Your task to perform on an android device: Add dell xps to the cart on bestbuy, then select checkout. Image 0: 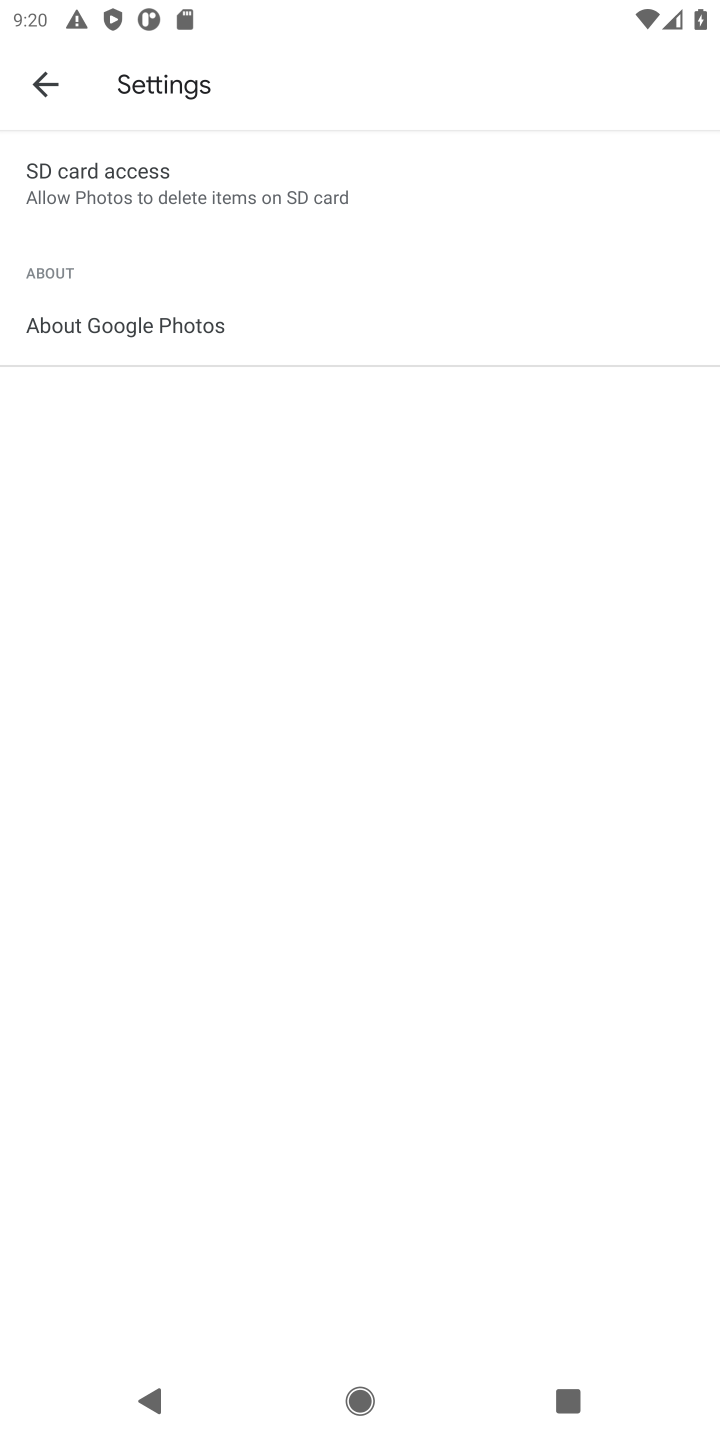
Step 0: press home button
Your task to perform on an android device: Add dell xps to the cart on bestbuy, then select checkout. Image 1: 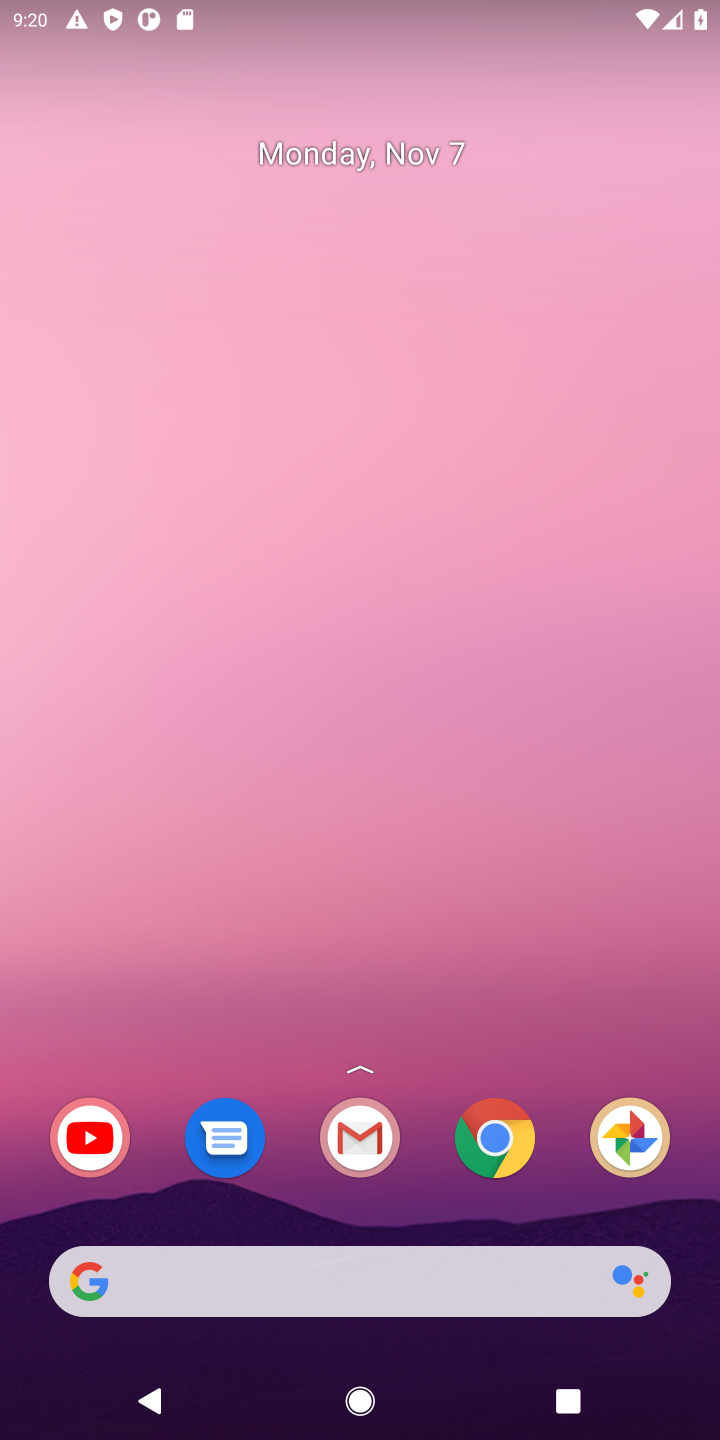
Step 1: click (505, 1133)
Your task to perform on an android device: Add dell xps to the cart on bestbuy, then select checkout. Image 2: 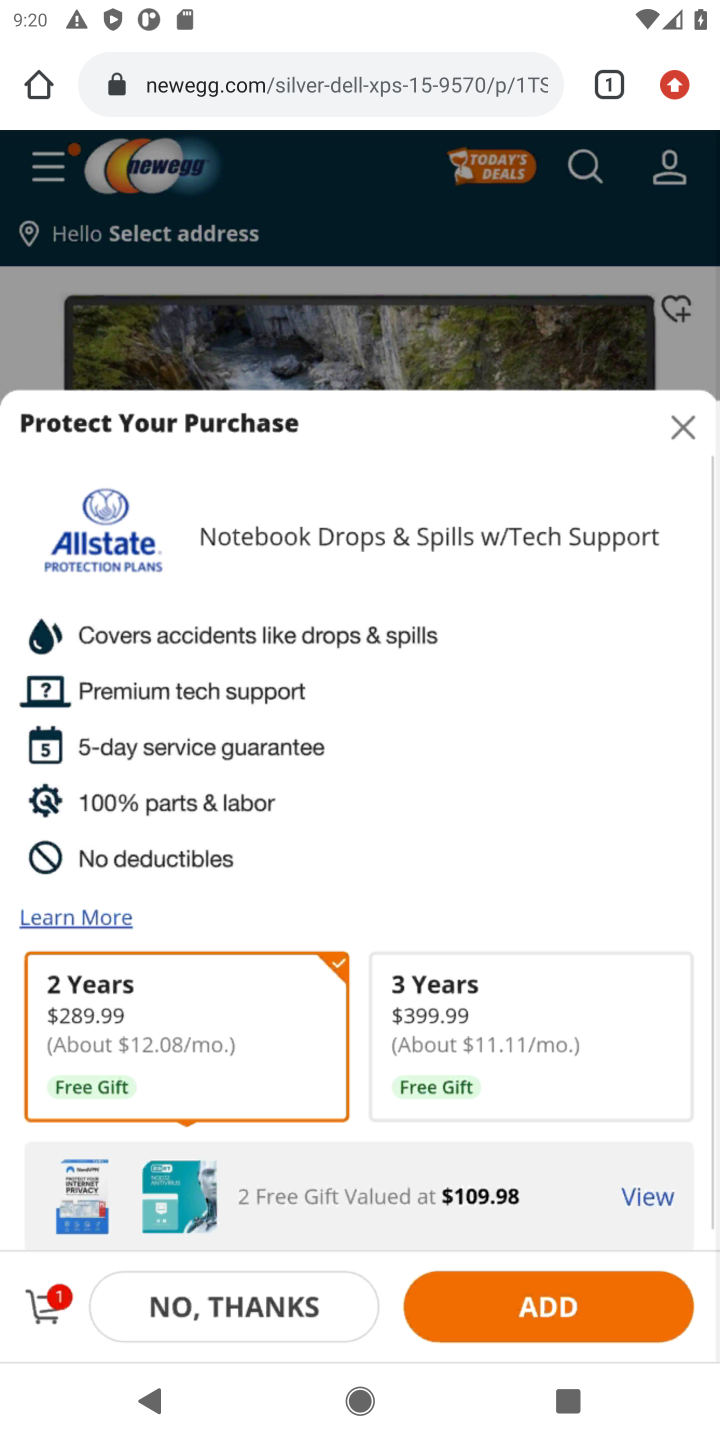
Step 2: click (216, 80)
Your task to perform on an android device: Add dell xps to the cart on bestbuy, then select checkout. Image 3: 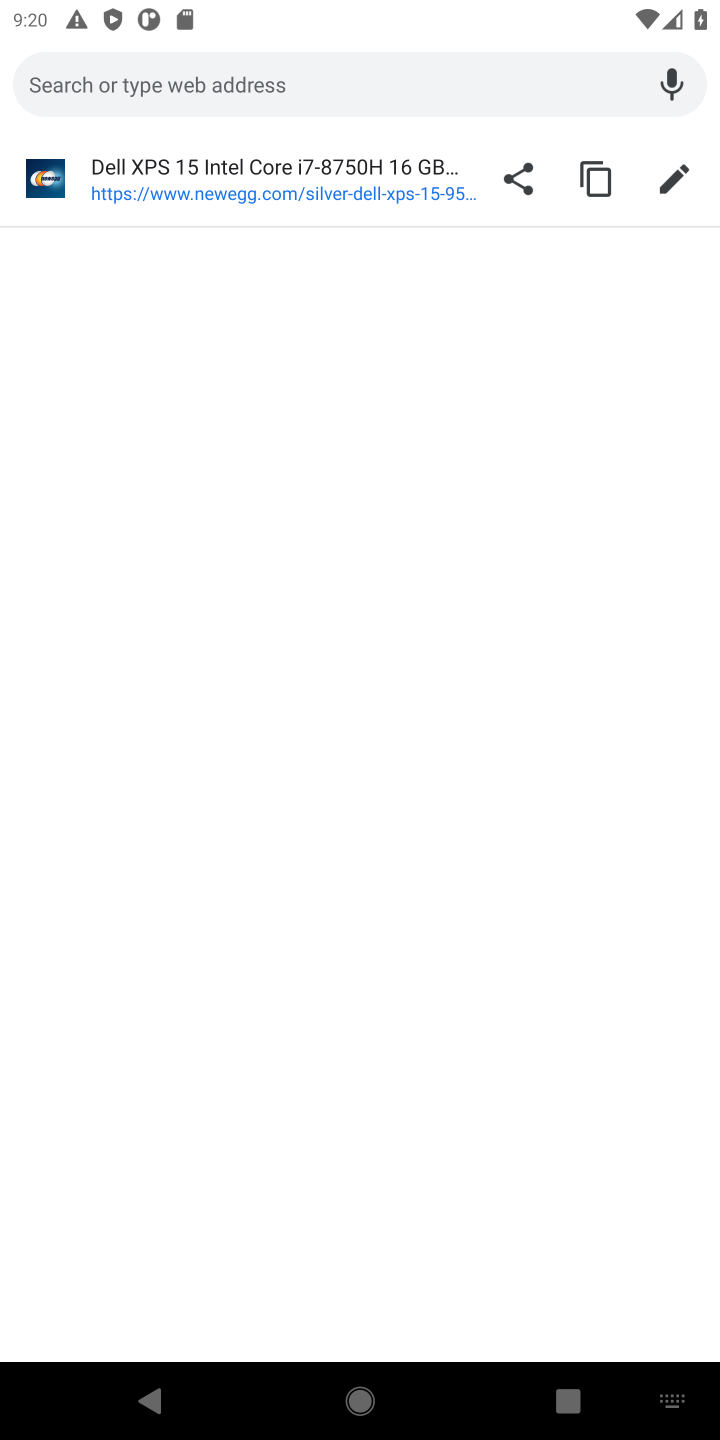
Step 3: type "bestbuy"
Your task to perform on an android device: Add dell xps to the cart on bestbuy, then select checkout. Image 4: 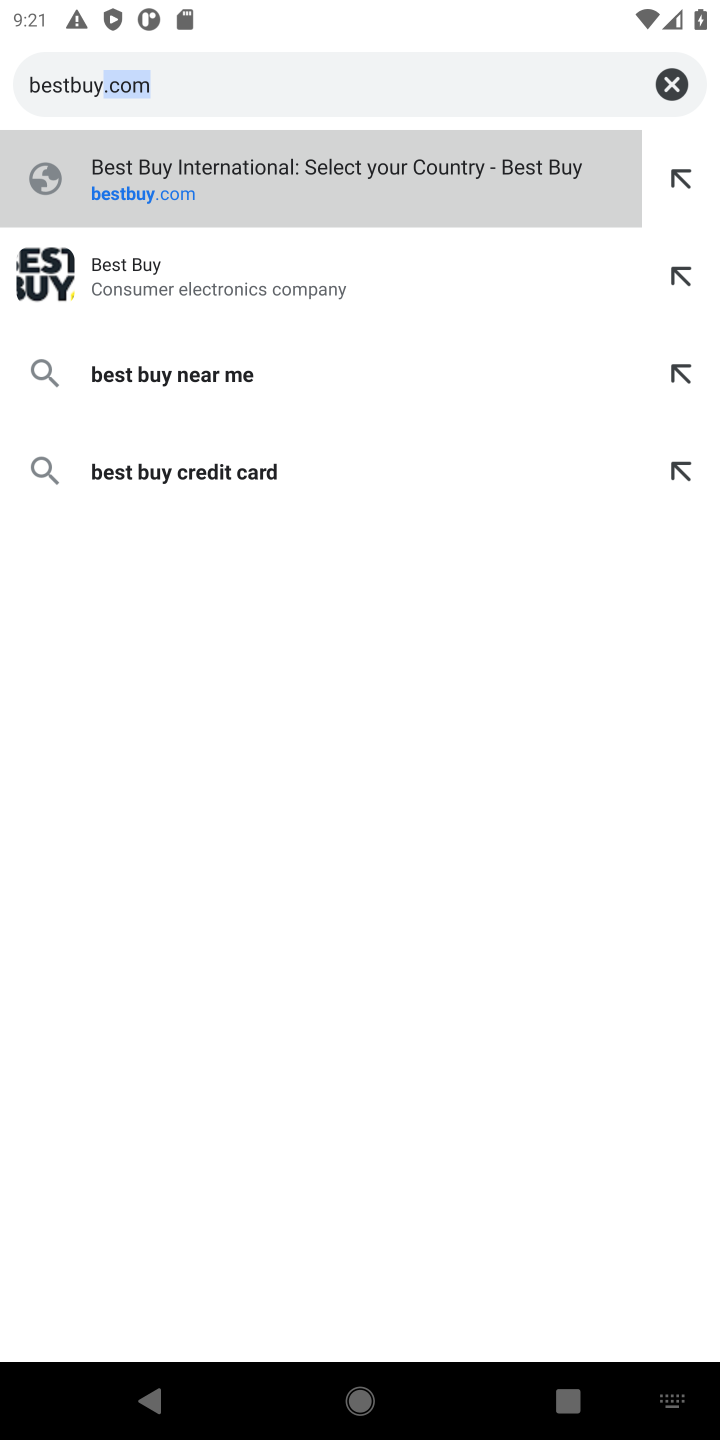
Step 4: click (105, 247)
Your task to perform on an android device: Add dell xps to the cart on bestbuy, then select checkout. Image 5: 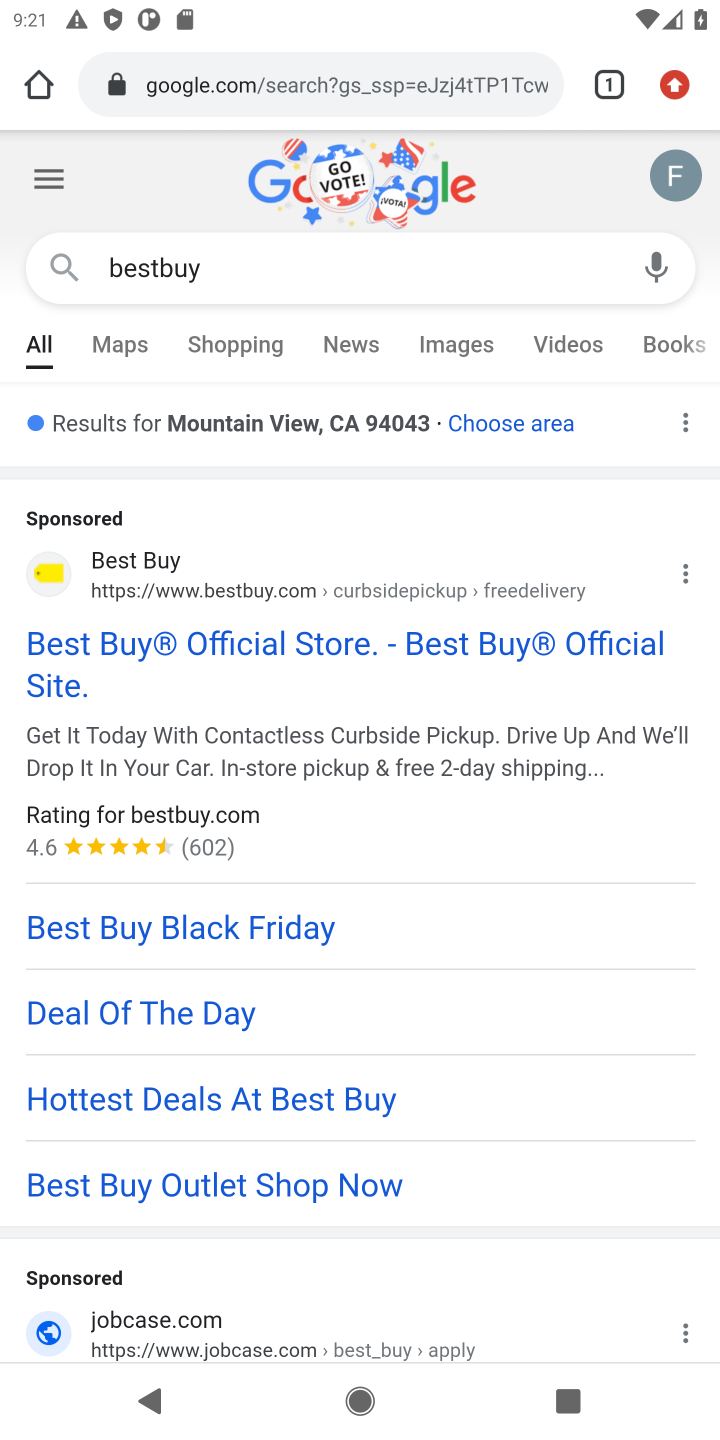
Step 5: click (263, 647)
Your task to perform on an android device: Add dell xps to the cart on bestbuy, then select checkout. Image 6: 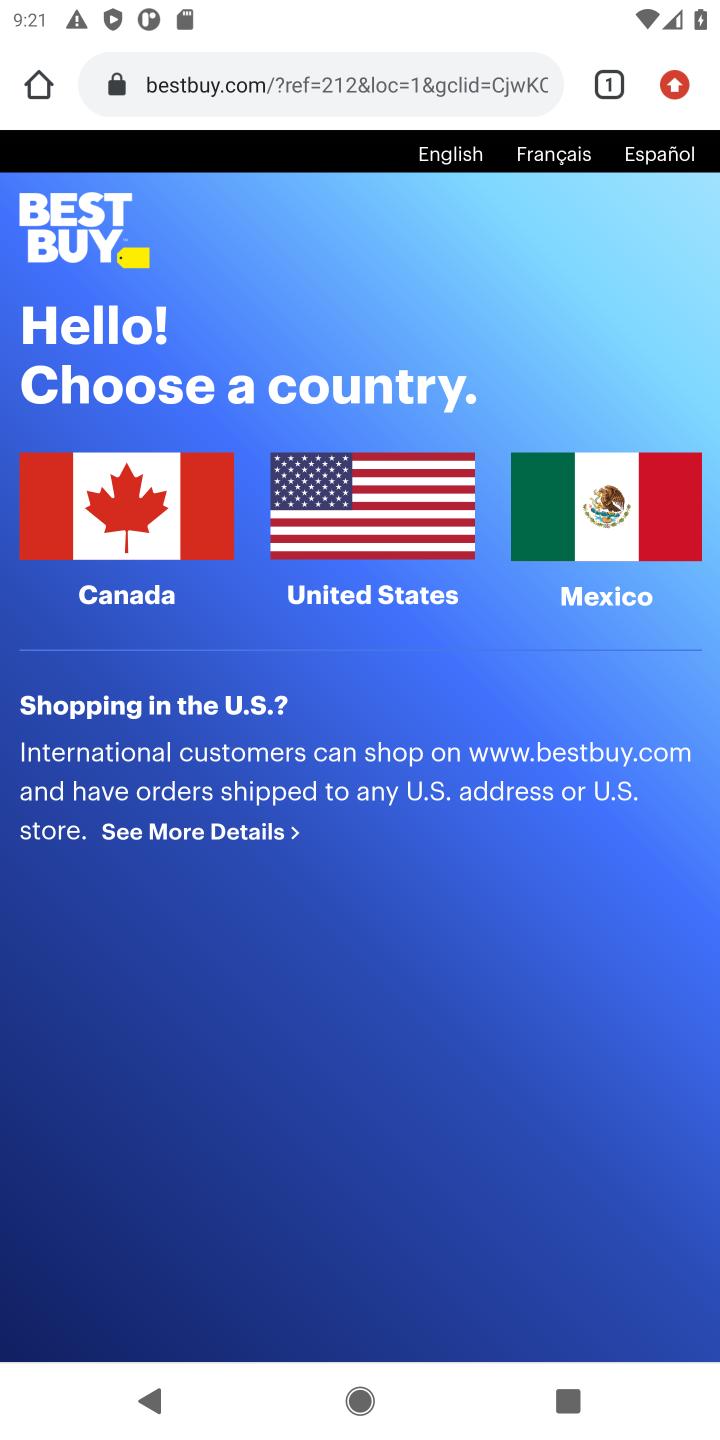
Step 6: click (98, 505)
Your task to perform on an android device: Add dell xps to the cart on bestbuy, then select checkout. Image 7: 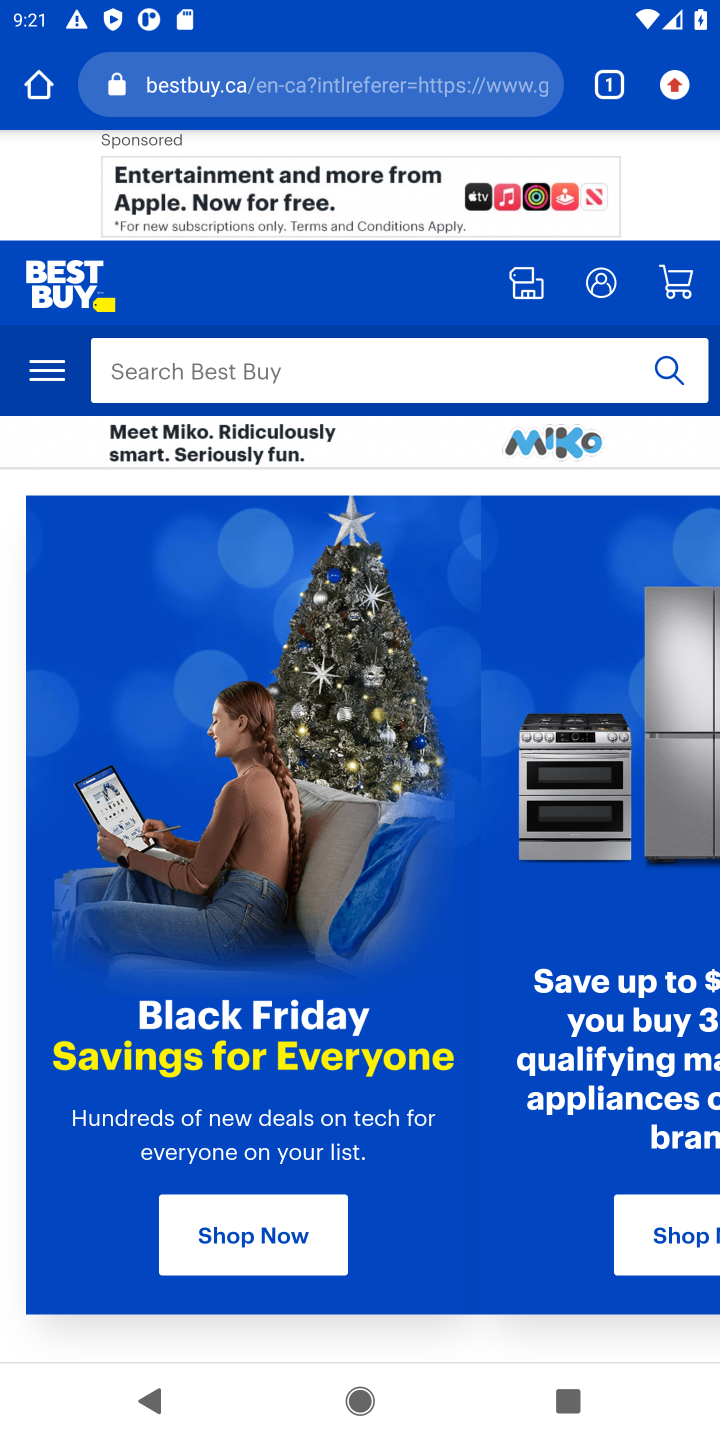
Step 7: click (315, 358)
Your task to perform on an android device: Add dell xps to the cart on bestbuy, then select checkout. Image 8: 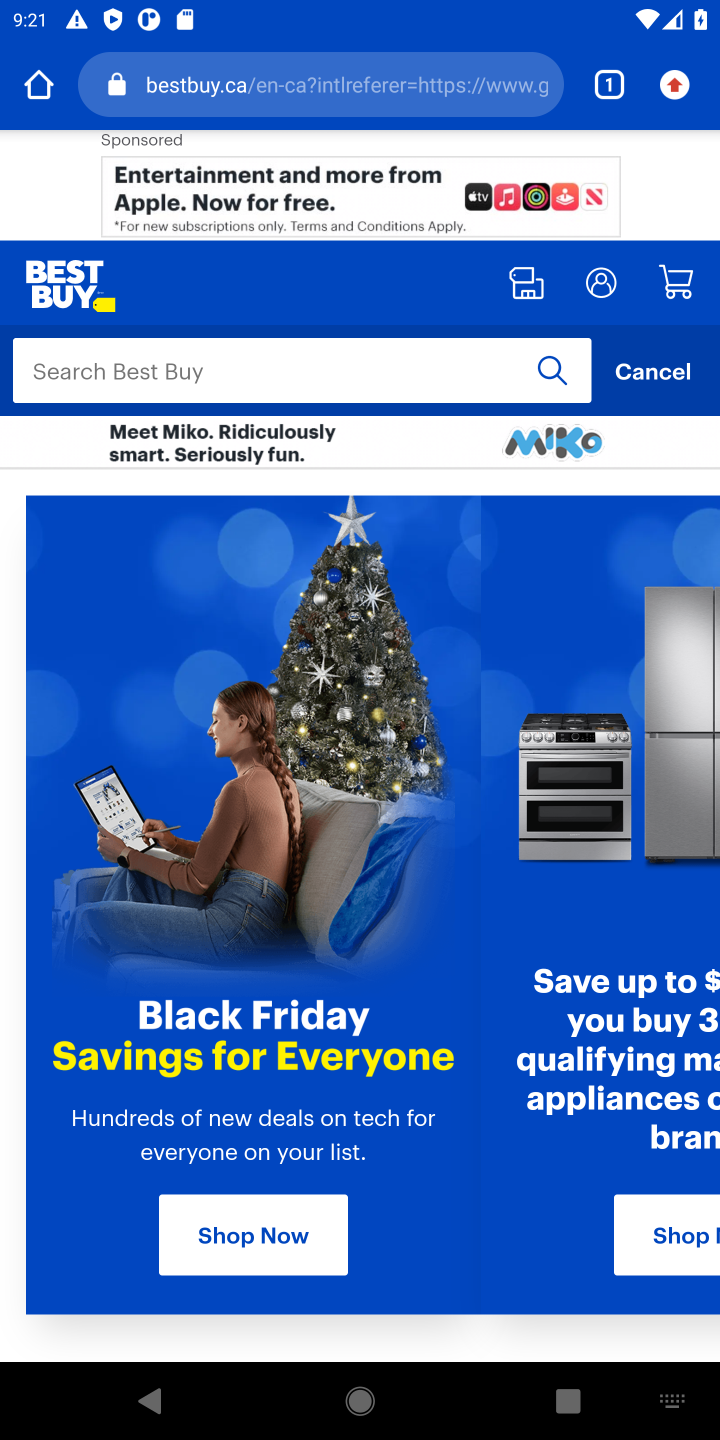
Step 8: type "dell xps "
Your task to perform on an android device: Add dell xps to the cart on bestbuy, then select checkout. Image 9: 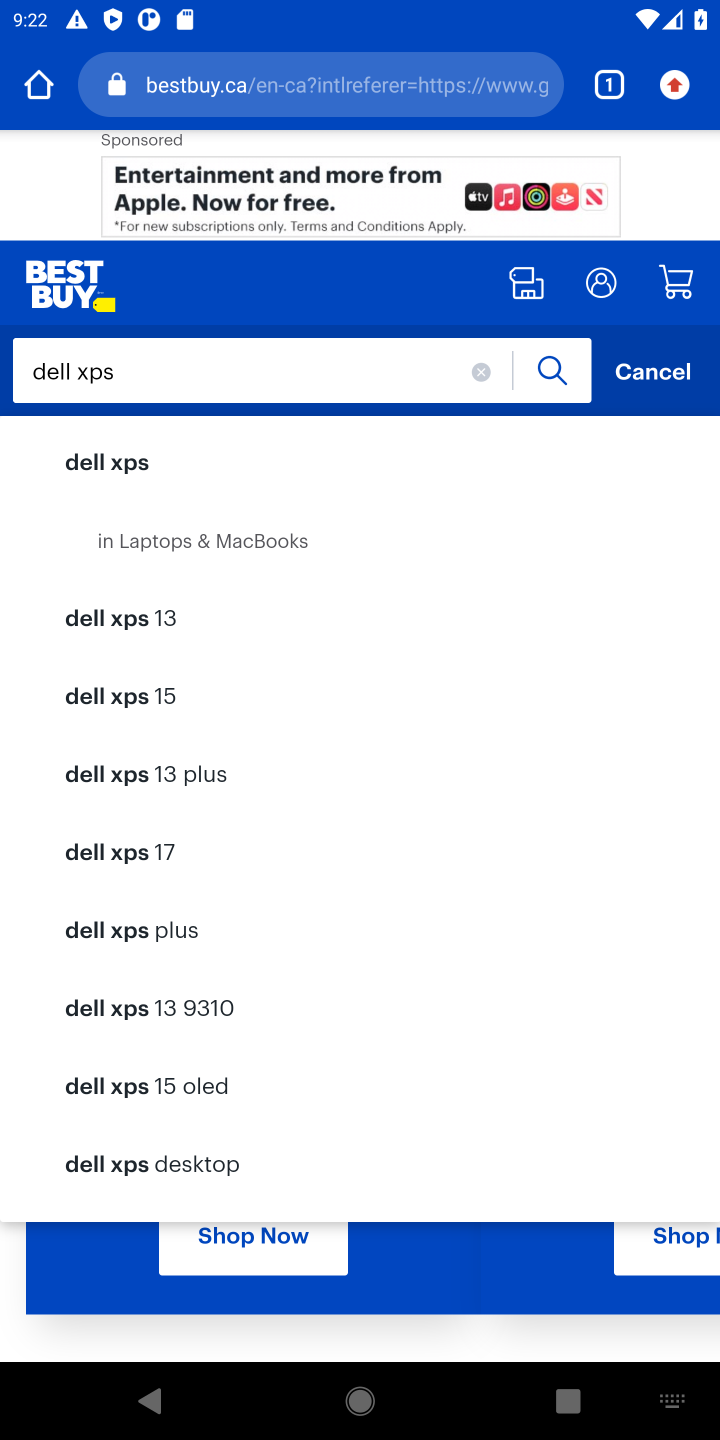
Step 9: click (126, 631)
Your task to perform on an android device: Add dell xps to the cart on bestbuy, then select checkout. Image 10: 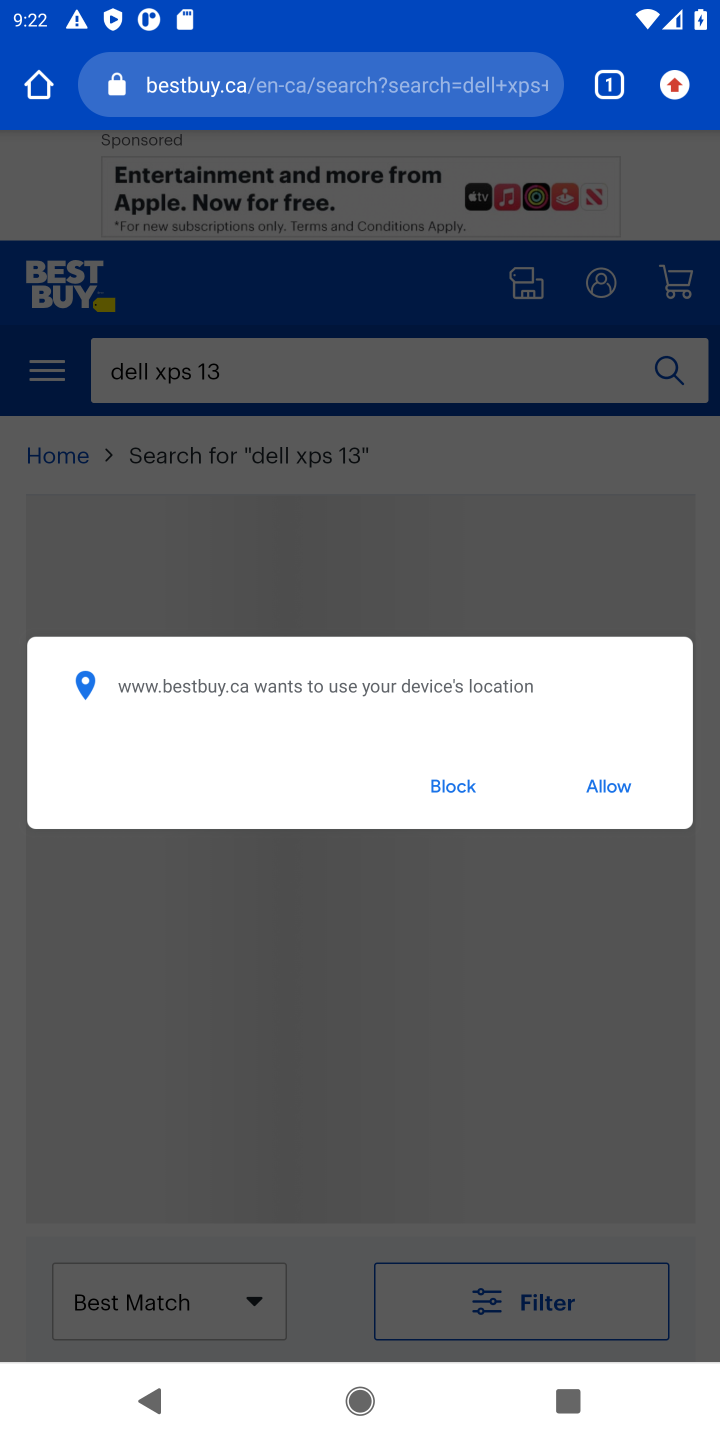
Step 10: click (604, 780)
Your task to perform on an android device: Add dell xps to the cart on bestbuy, then select checkout. Image 11: 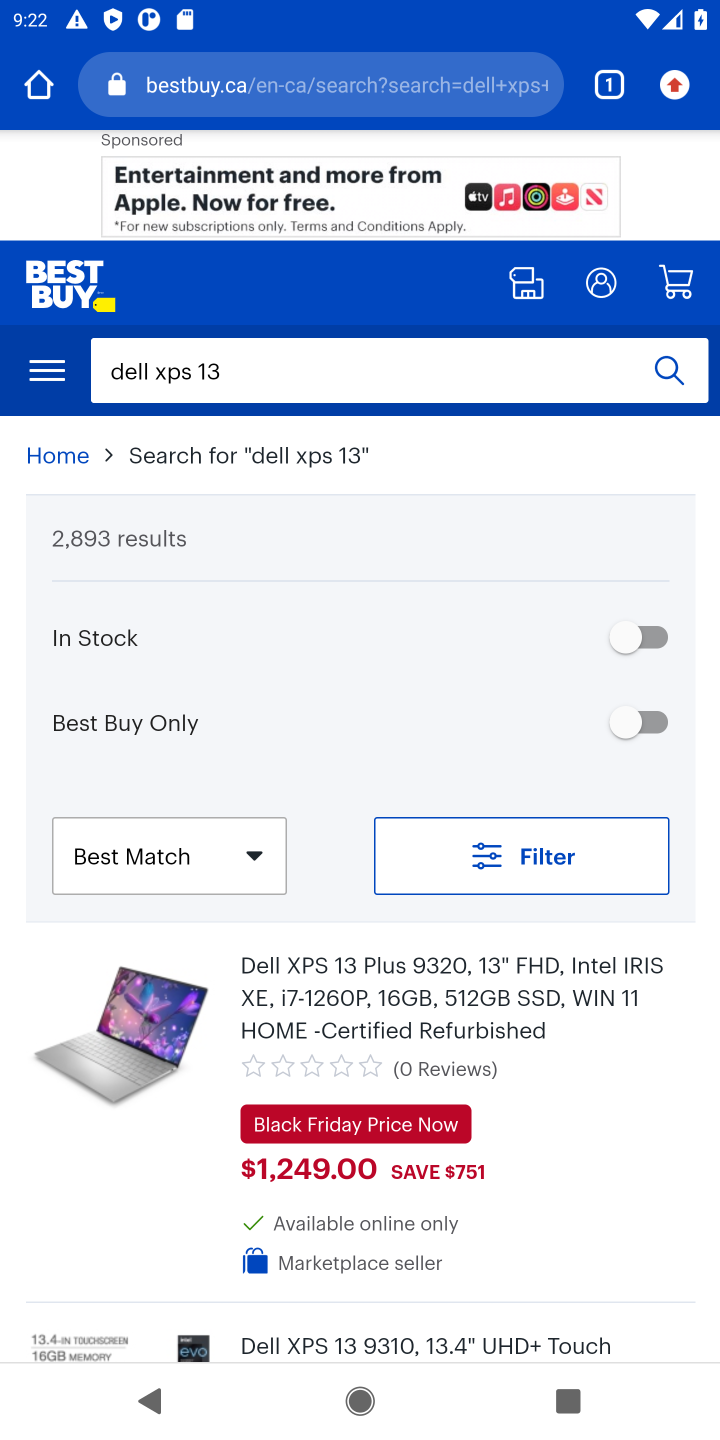
Step 11: drag from (447, 1003) to (466, 795)
Your task to perform on an android device: Add dell xps to the cart on bestbuy, then select checkout. Image 12: 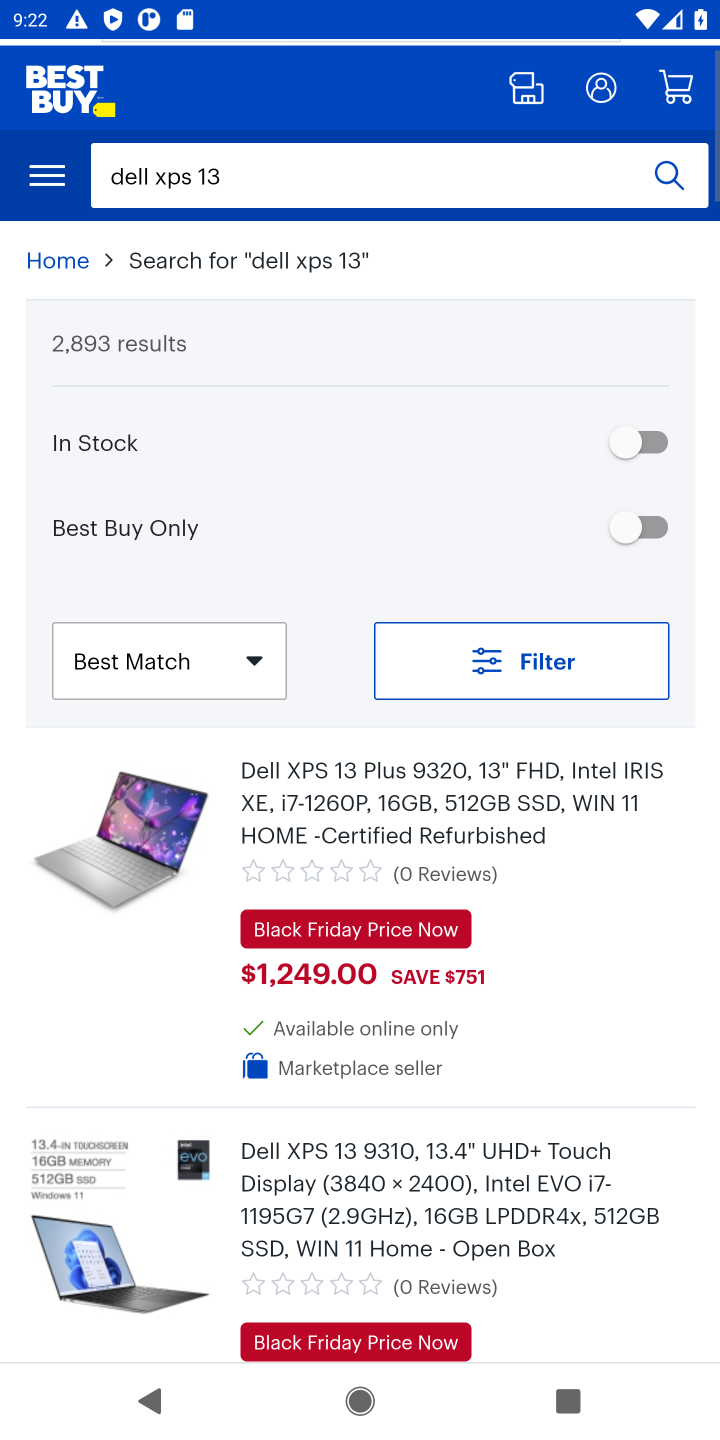
Step 12: click (292, 977)
Your task to perform on an android device: Add dell xps to the cart on bestbuy, then select checkout. Image 13: 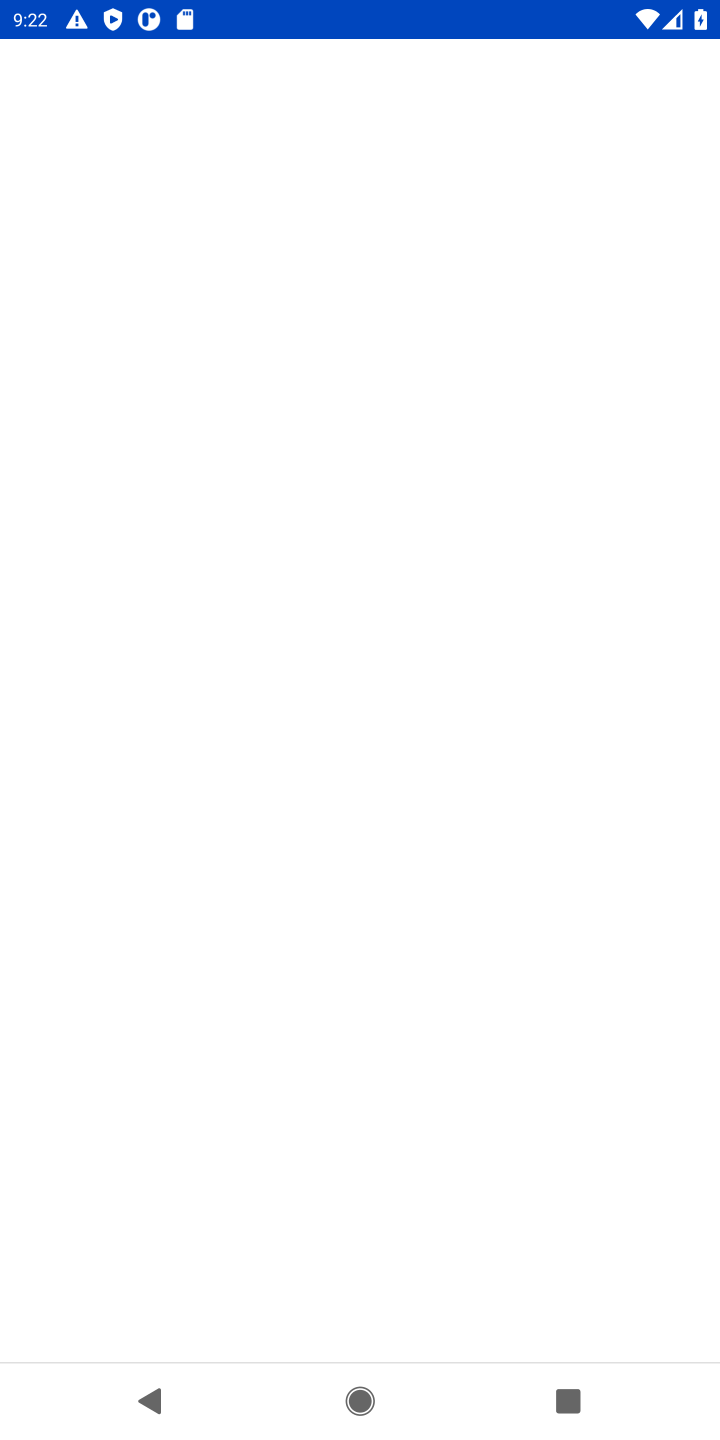
Step 13: click (300, 1172)
Your task to perform on an android device: Add dell xps to the cart on bestbuy, then select checkout. Image 14: 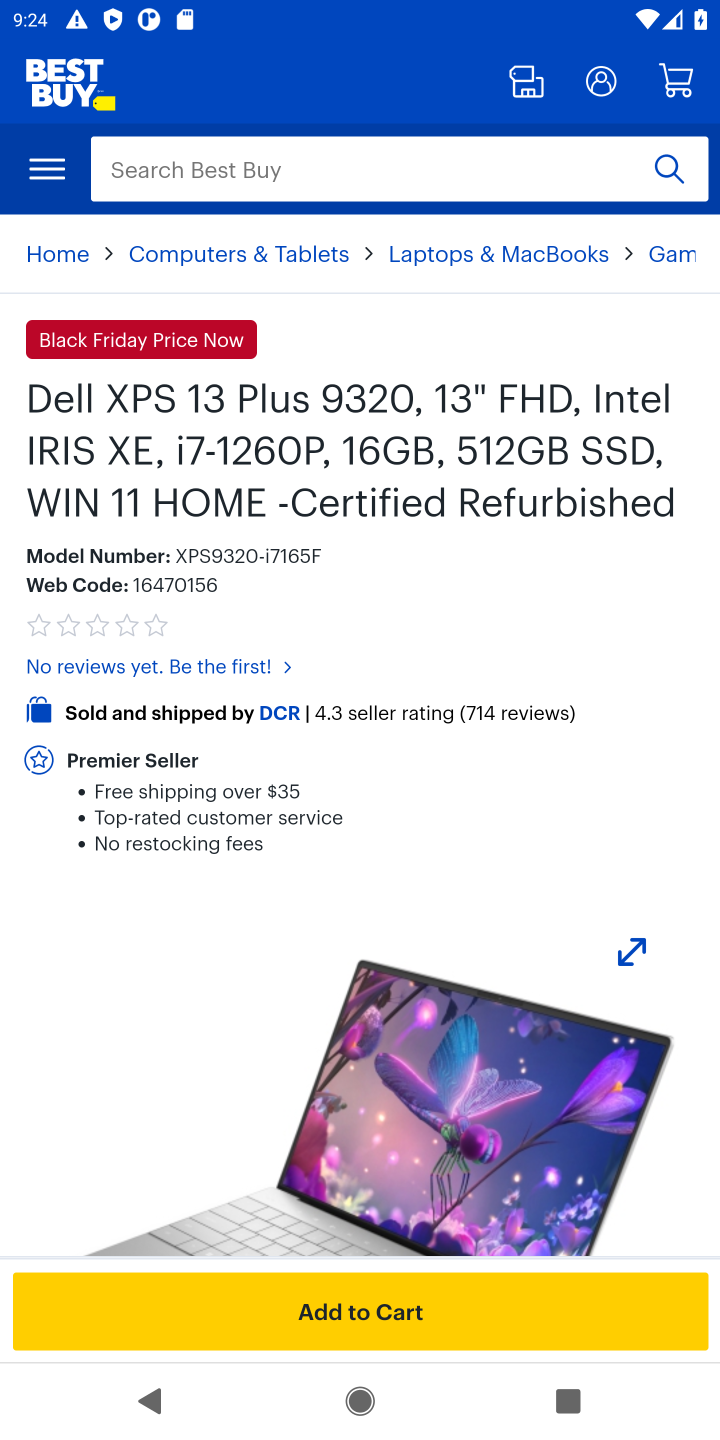
Step 14: click (303, 1307)
Your task to perform on an android device: Add dell xps to the cart on bestbuy, then select checkout. Image 15: 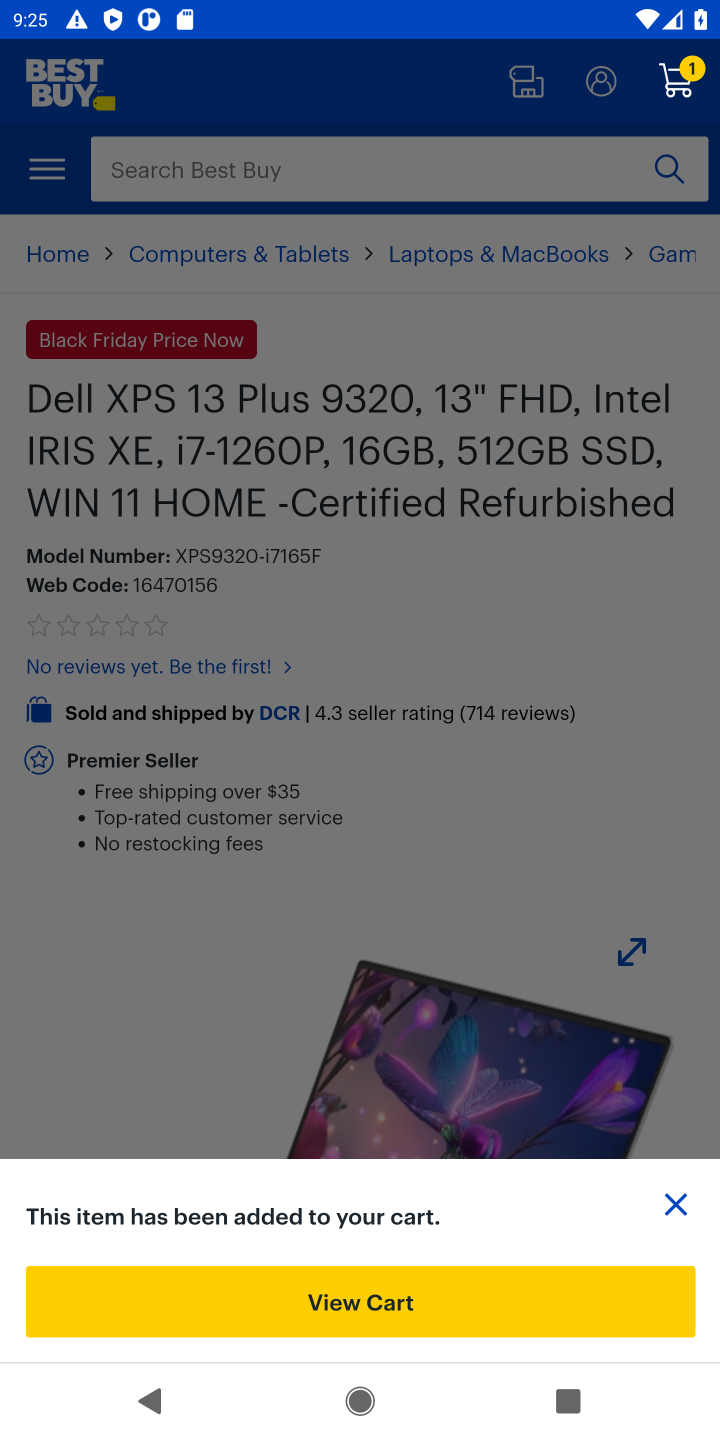
Step 15: click (361, 1311)
Your task to perform on an android device: Add dell xps to the cart on bestbuy, then select checkout. Image 16: 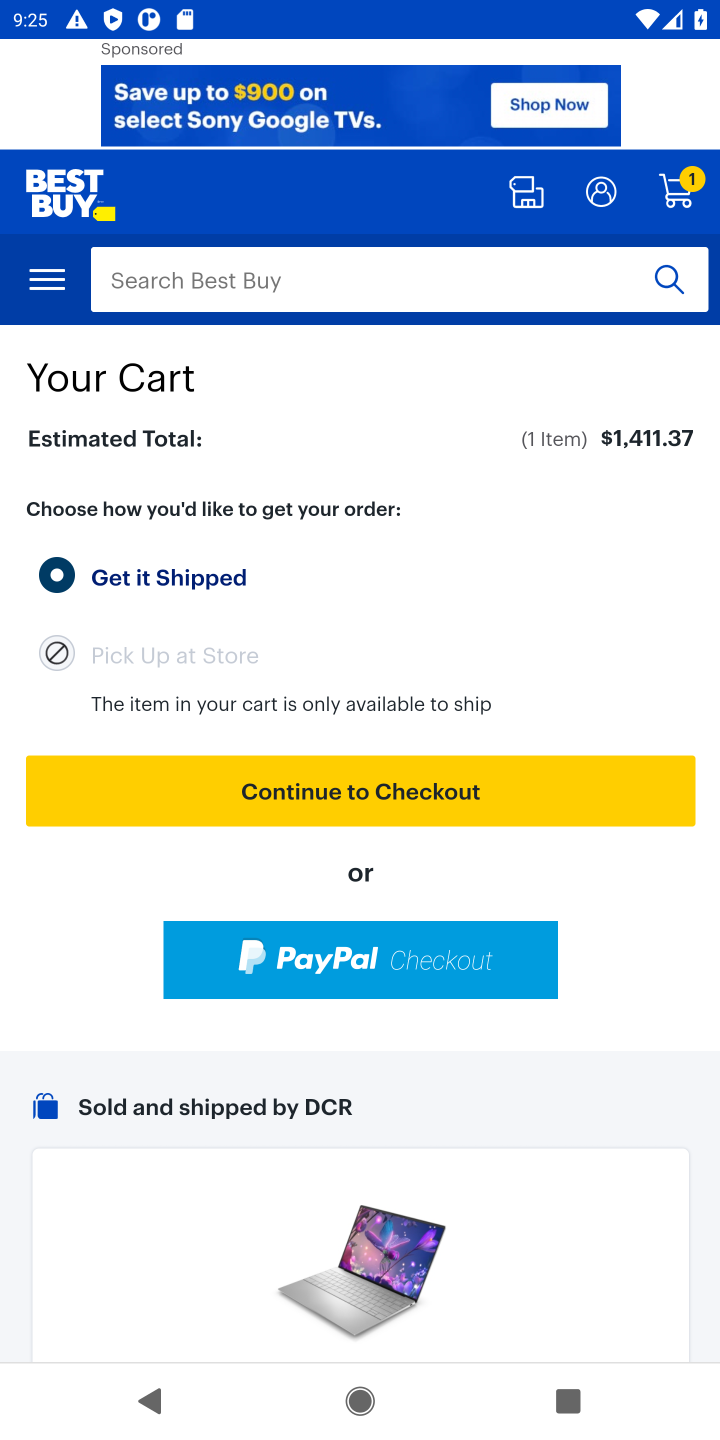
Step 16: click (446, 788)
Your task to perform on an android device: Add dell xps to the cart on bestbuy, then select checkout. Image 17: 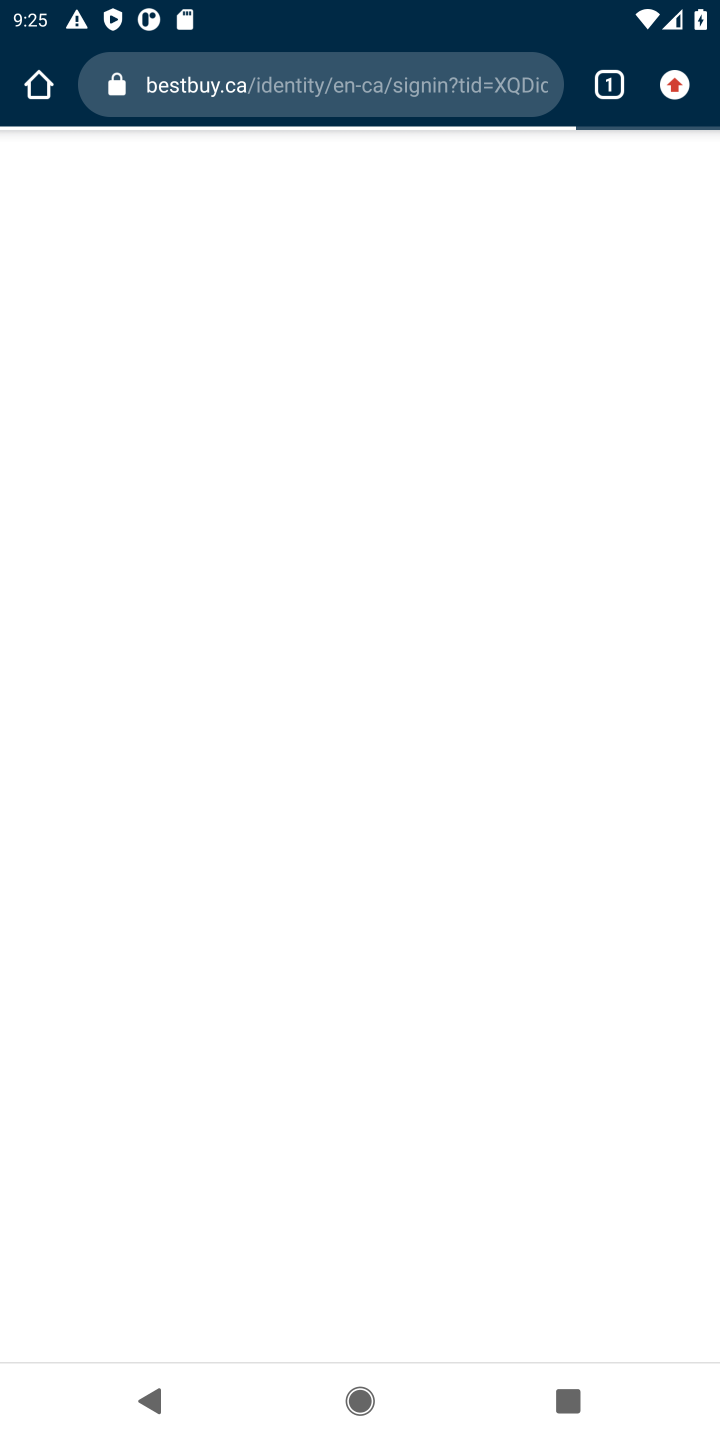
Step 17: task complete